Your task to perform on an android device: When is my next appointment? Image 0: 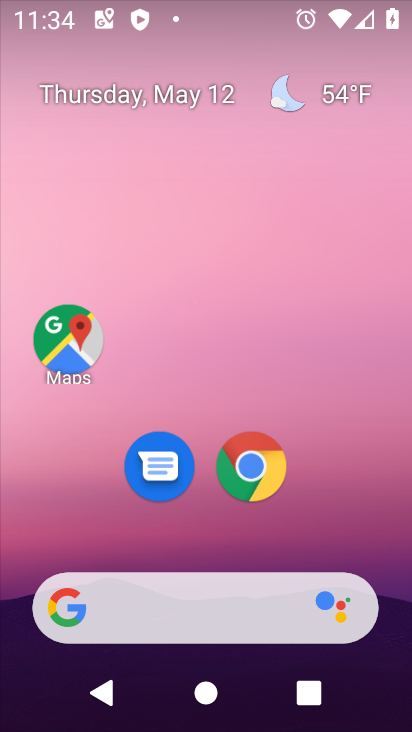
Step 0: drag from (351, 496) to (332, 96)
Your task to perform on an android device: When is my next appointment? Image 1: 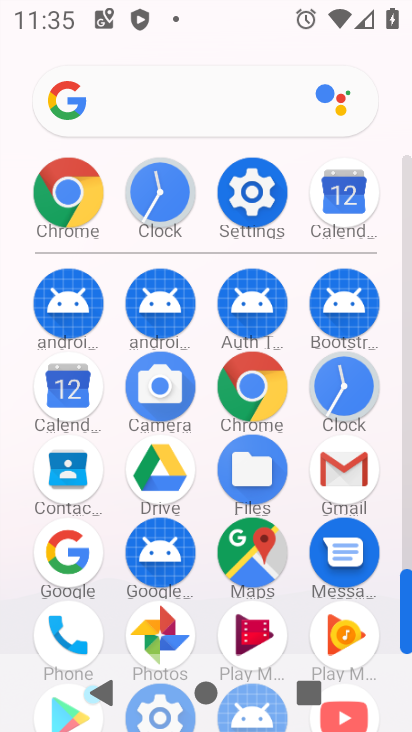
Step 1: click (53, 395)
Your task to perform on an android device: When is my next appointment? Image 2: 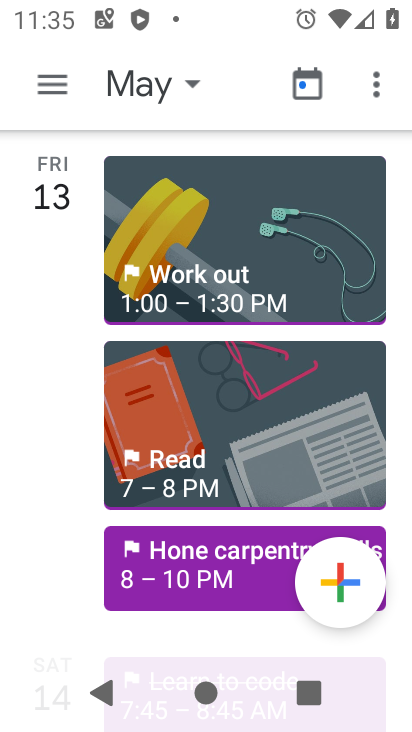
Step 2: task complete